Your task to perform on an android device: open app "Paramount+ | Peak Streaming" (install if not already installed) Image 0: 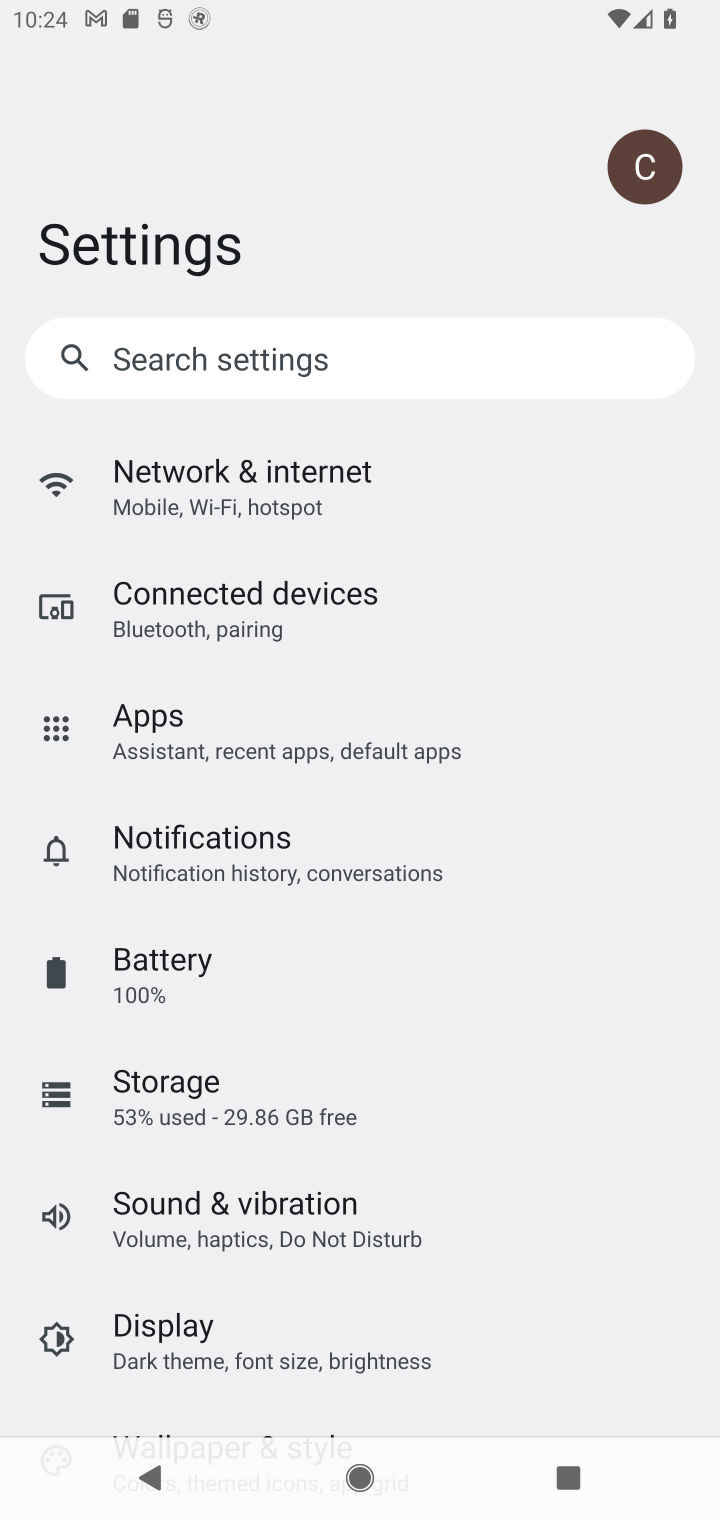
Step 0: press home button
Your task to perform on an android device: open app "Paramount+ | Peak Streaming" (install if not already installed) Image 1: 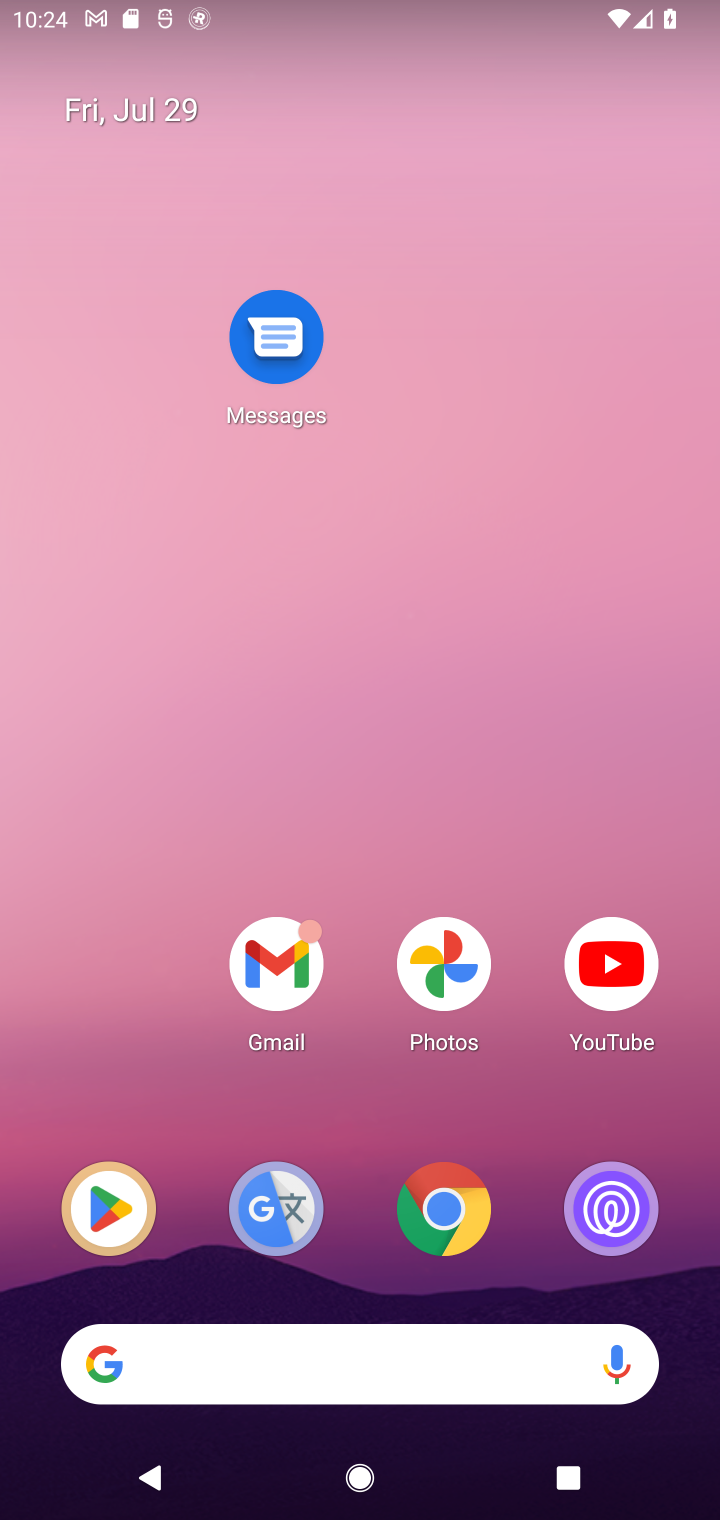
Step 1: drag from (329, 1361) to (356, 460)
Your task to perform on an android device: open app "Paramount+ | Peak Streaming" (install if not already installed) Image 2: 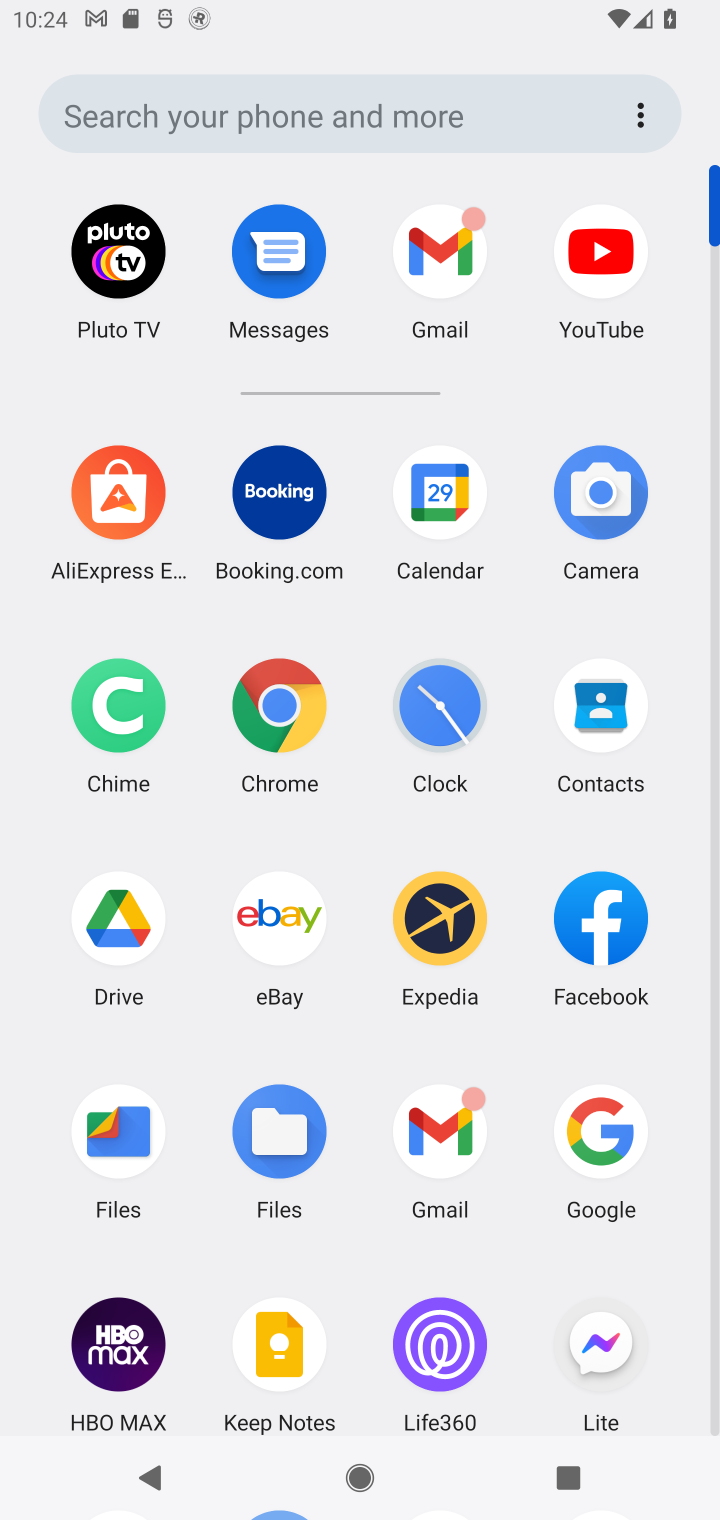
Step 2: drag from (343, 1146) to (312, 481)
Your task to perform on an android device: open app "Paramount+ | Peak Streaming" (install if not already installed) Image 3: 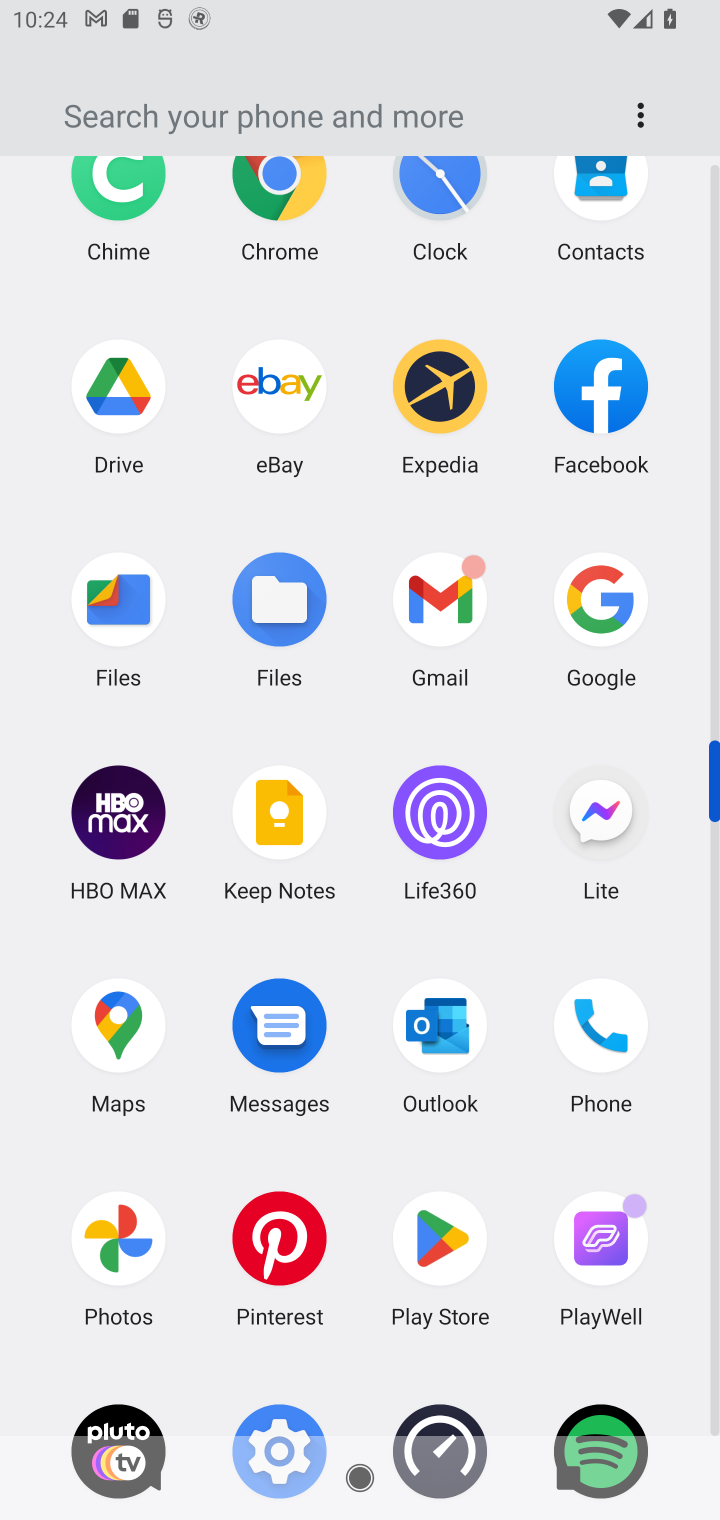
Step 3: click (446, 1236)
Your task to perform on an android device: open app "Paramount+ | Peak Streaming" (install if not already installed) Image 4: 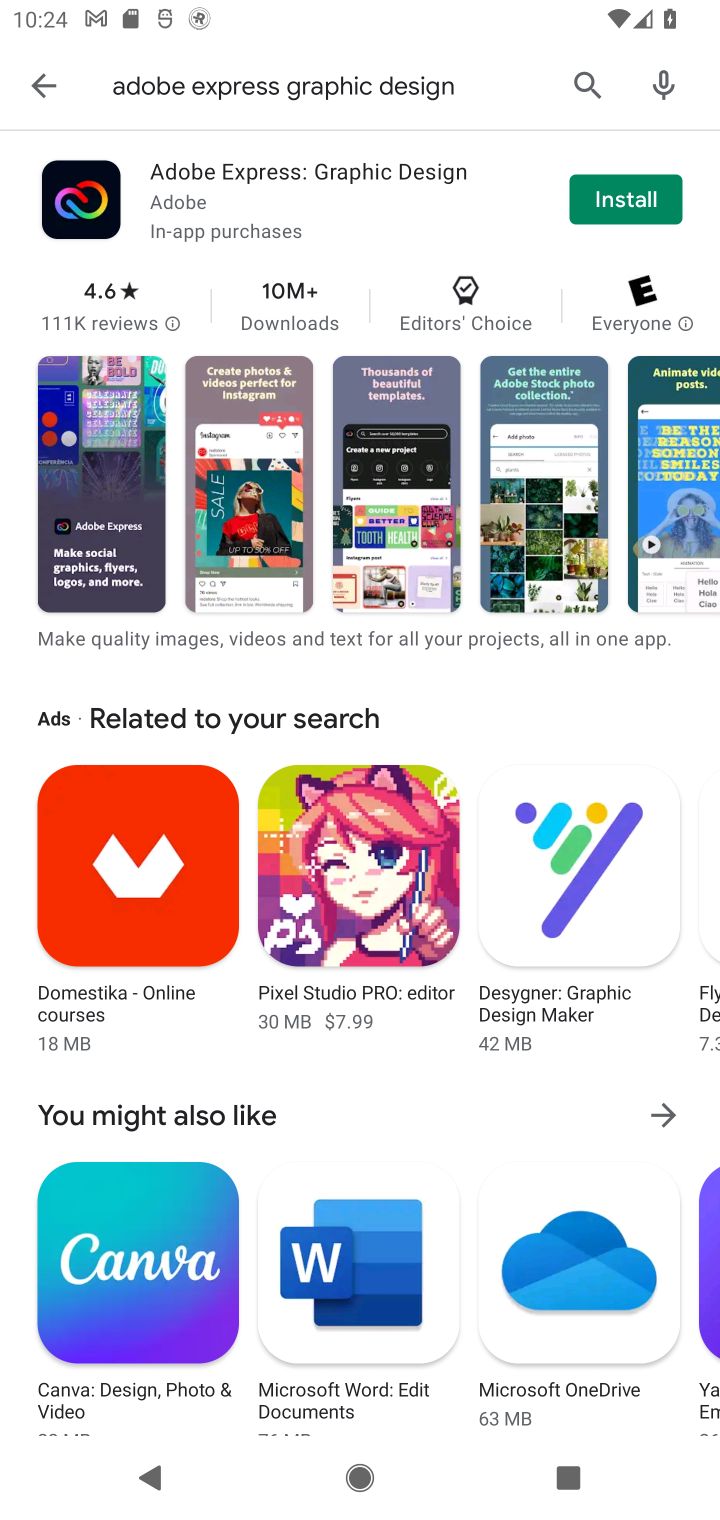
Step 4: click (584, 91)
Your task to perform on an android device: open app "Paramount+ | Peak Streaming" (install if not already installed) Image 5: 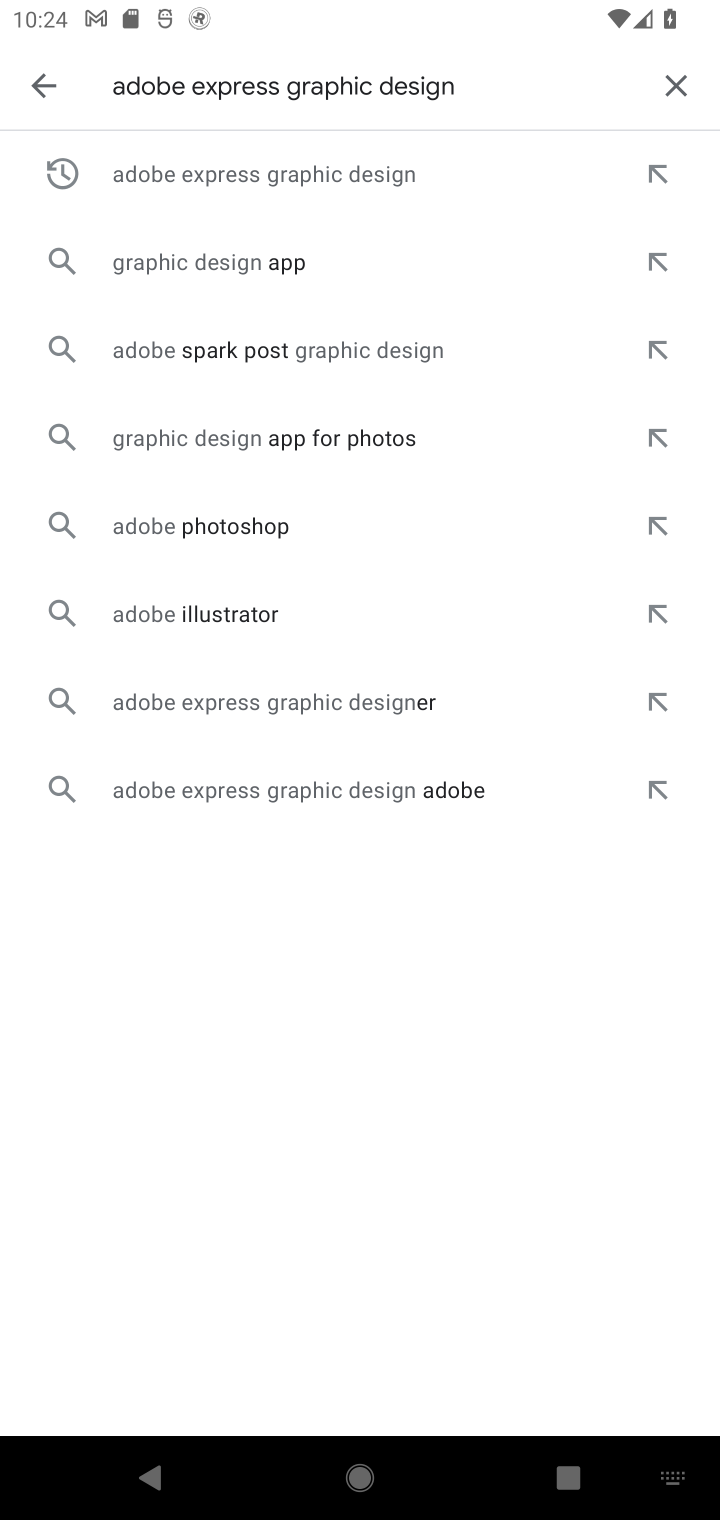
Step 5: click (683, 81)
Your task to perform on an android device: open app "Paramount+ | Peak Streaming" (install if not already installed) Image 6: 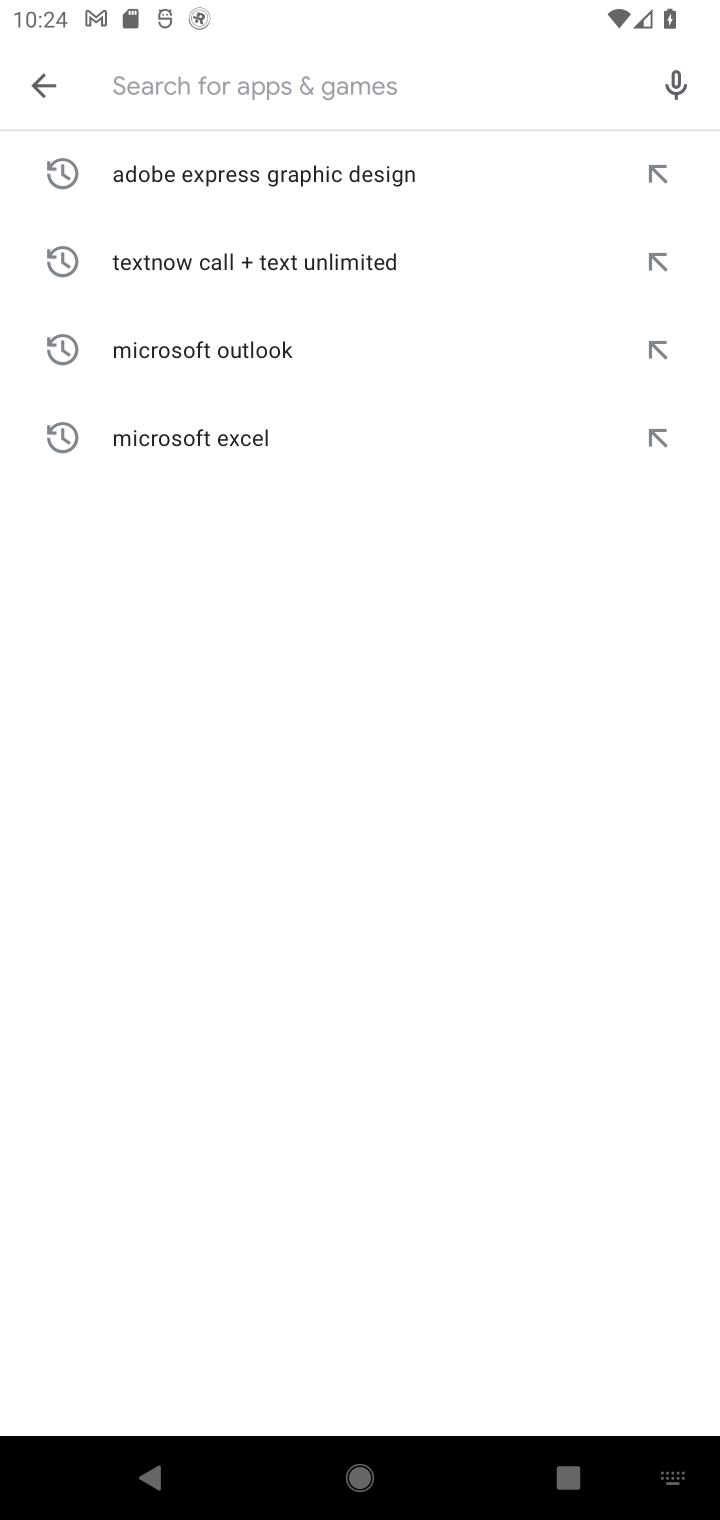
Step 6: type "Paramount+ | Peak Streaming"
Your task to perform on an android device: open app "Paramount+ | Peak Streaming" (install if not already installed) Image 7: 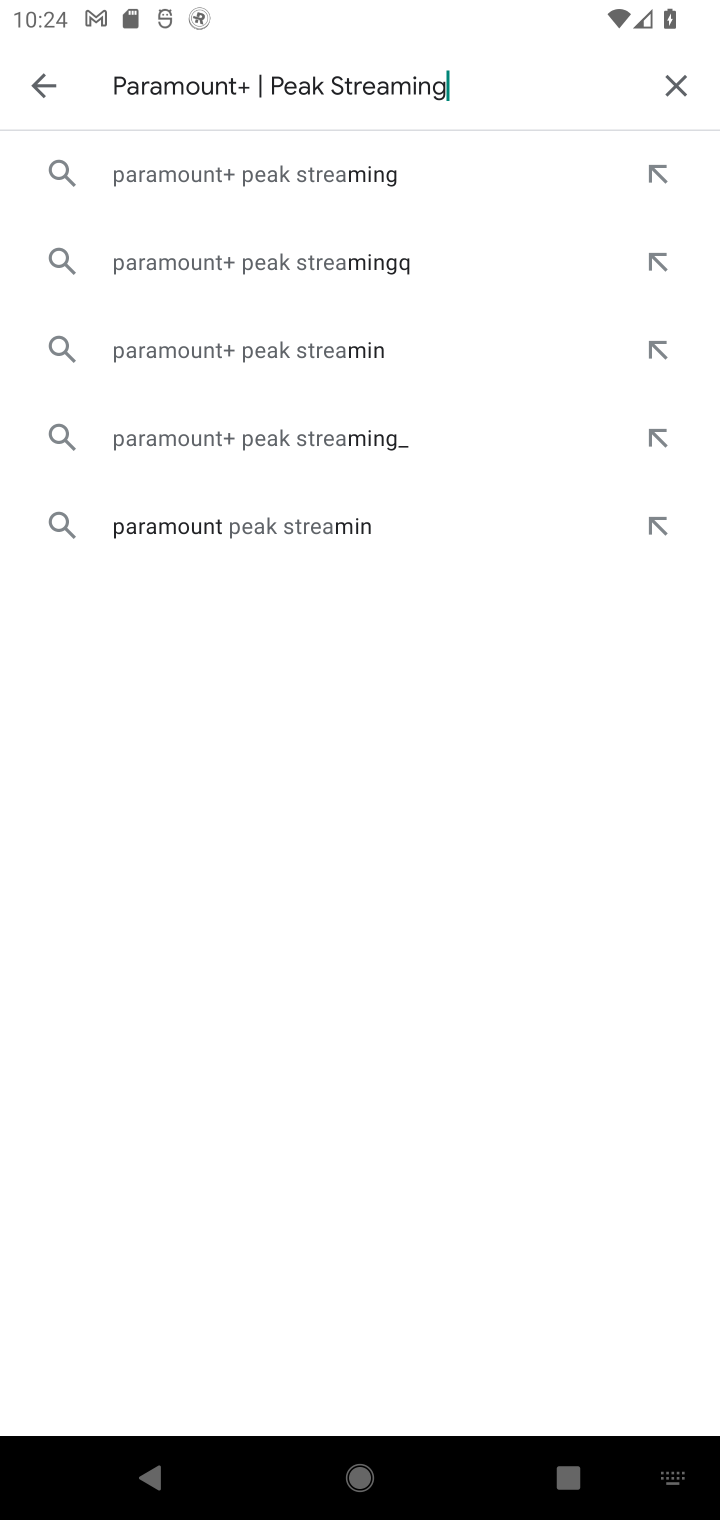
Step 7: type ""
Your task to perform on an android device: open app "Paramount+ | Peak Streaming" (install if not already installed) Image 8: 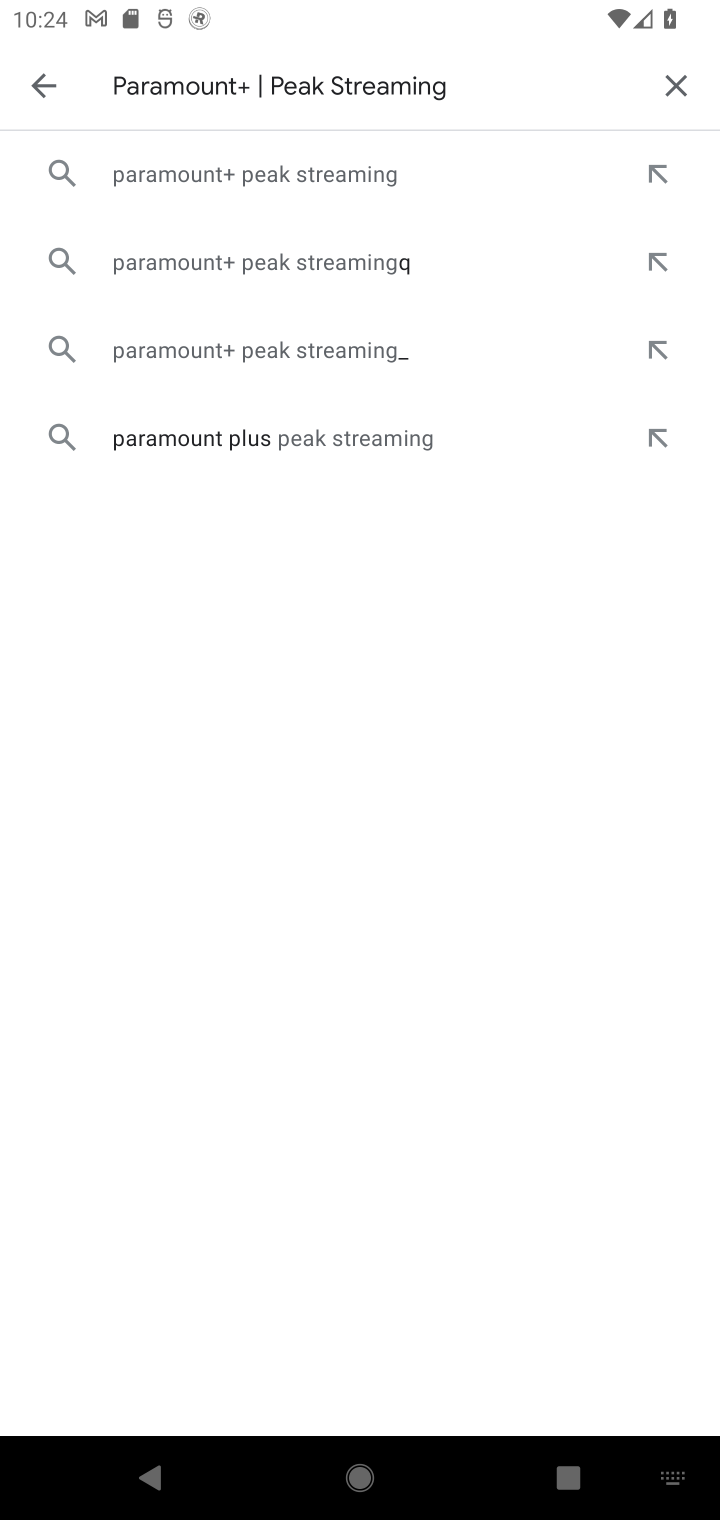
Step 8: click (320, 178)
Your task to perform on an android device: open app "Paramount+ | Peak Streaming" (install if not already installed) Image 9: 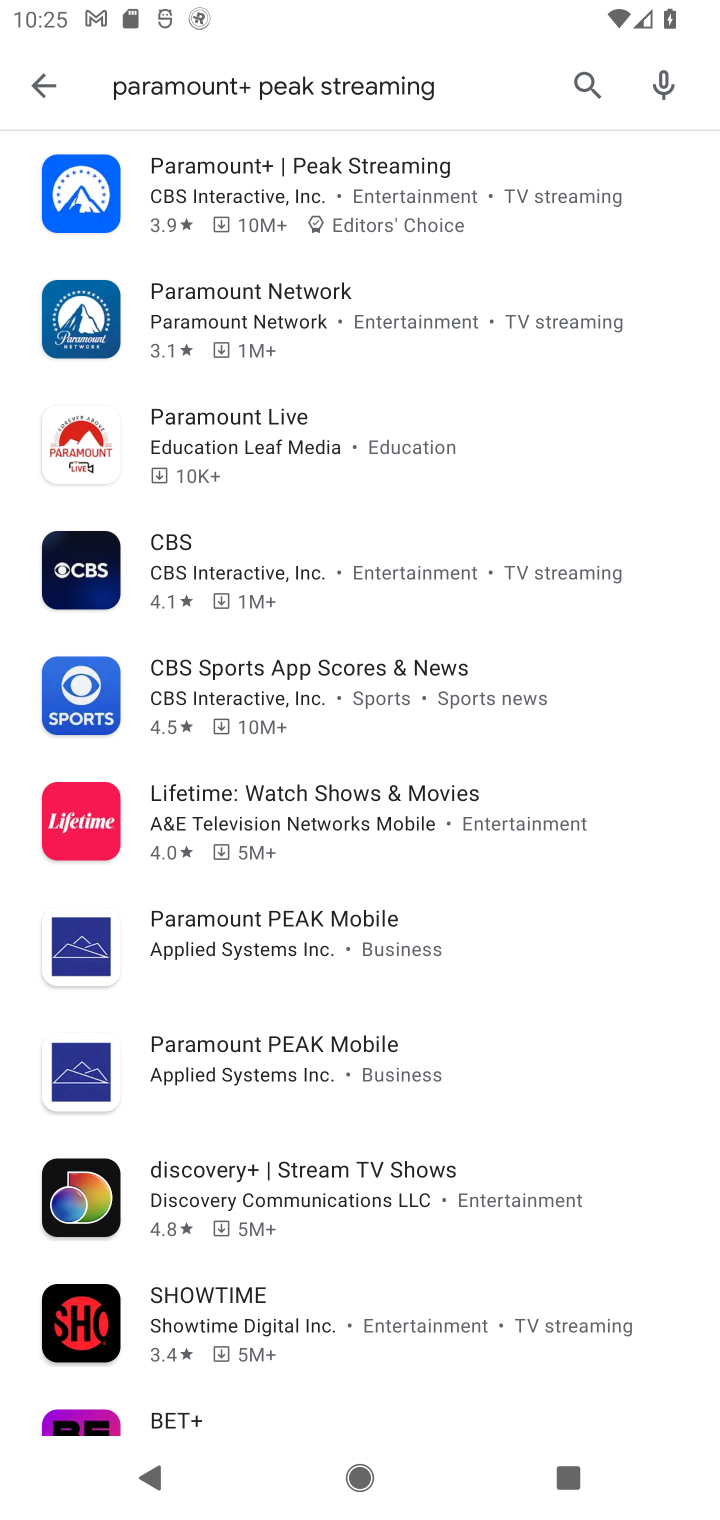
Step 9: click (262, 175)
Your task to perform on an android device: open app "Paramount+ | Peak Streaming" (install if not already installed) Image 10: 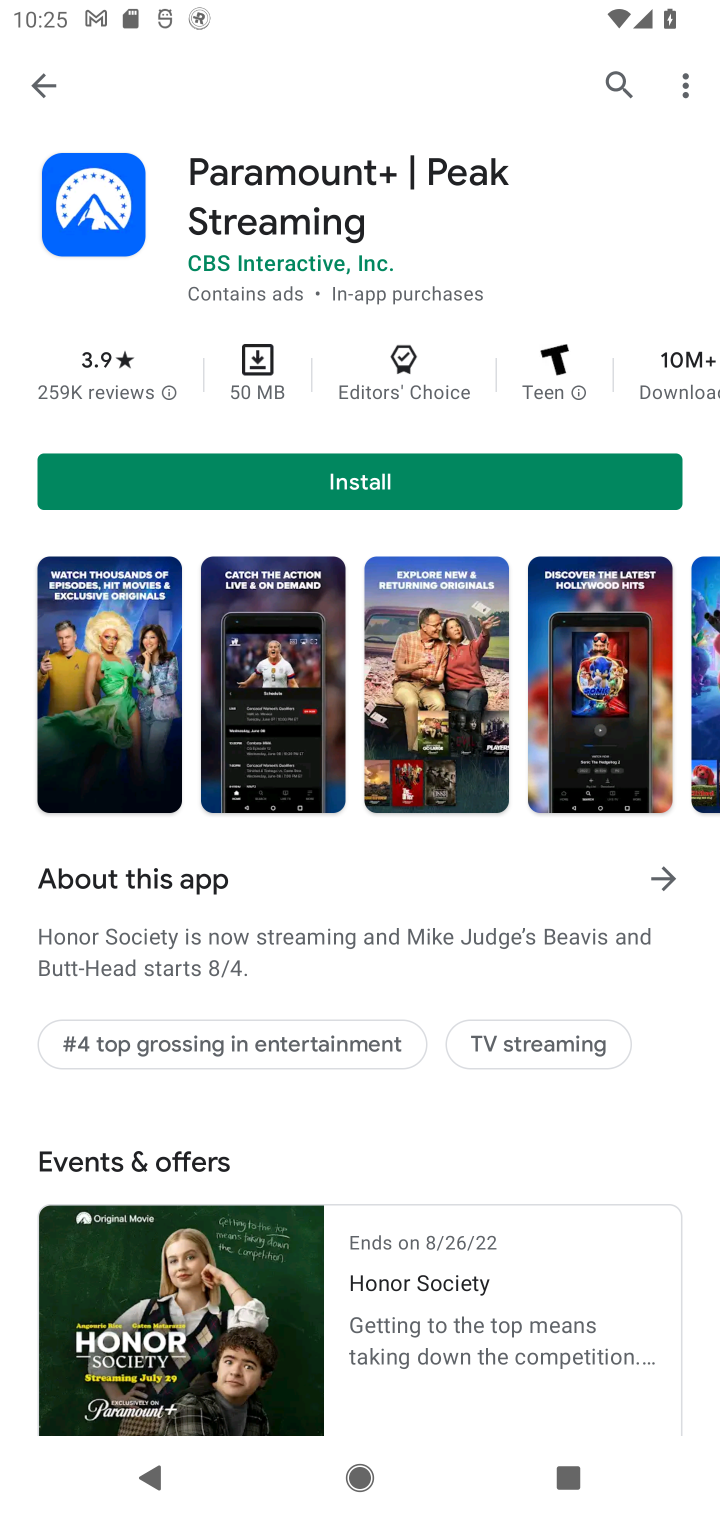
Step 10: click (362, 488)
Your task to perform on an android device: open app "Paramount+ | Peak Streaming" (install if not already installed) Image 11: 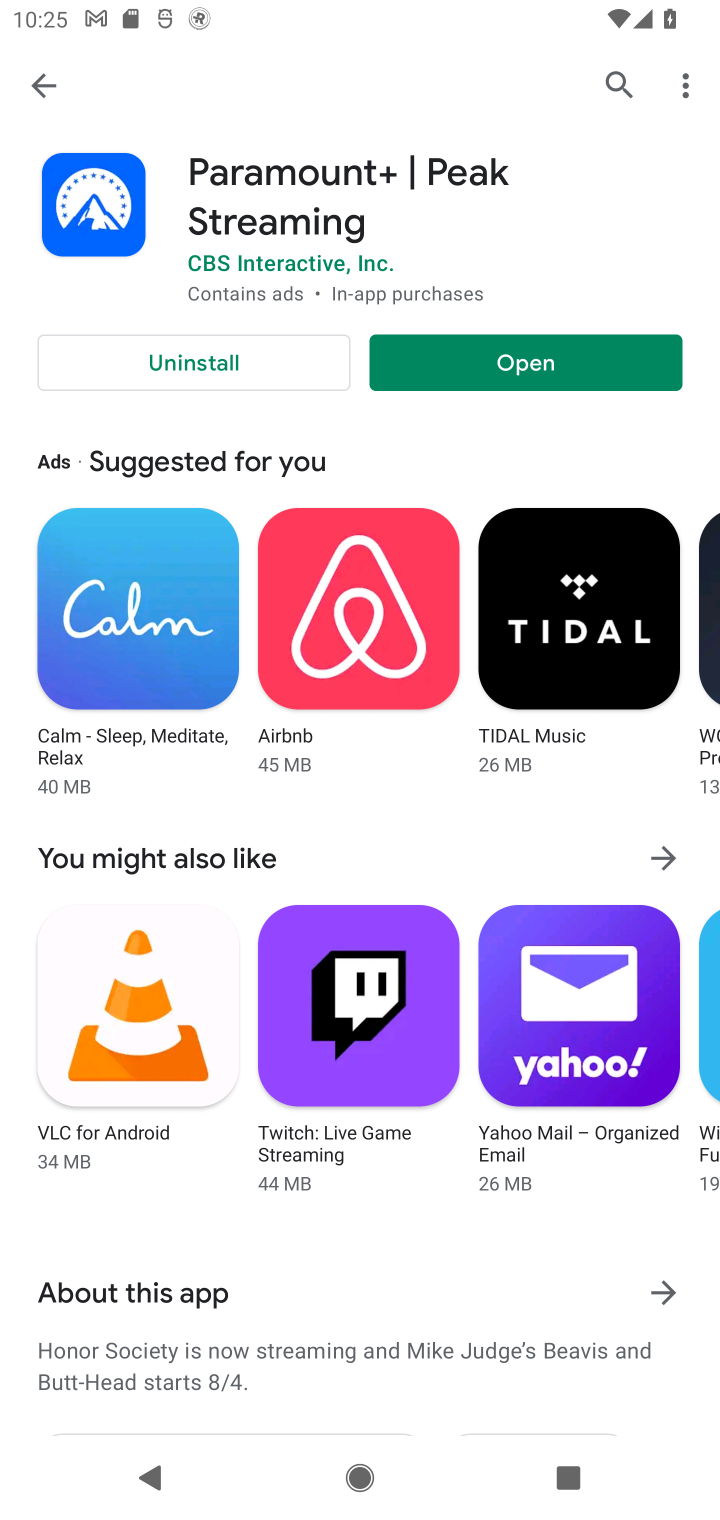
Step 11: click (523, 350)
Your task to perform on an android device: open app "Paramount+ | Peak Streaming" (install if not already installed) Image 12: 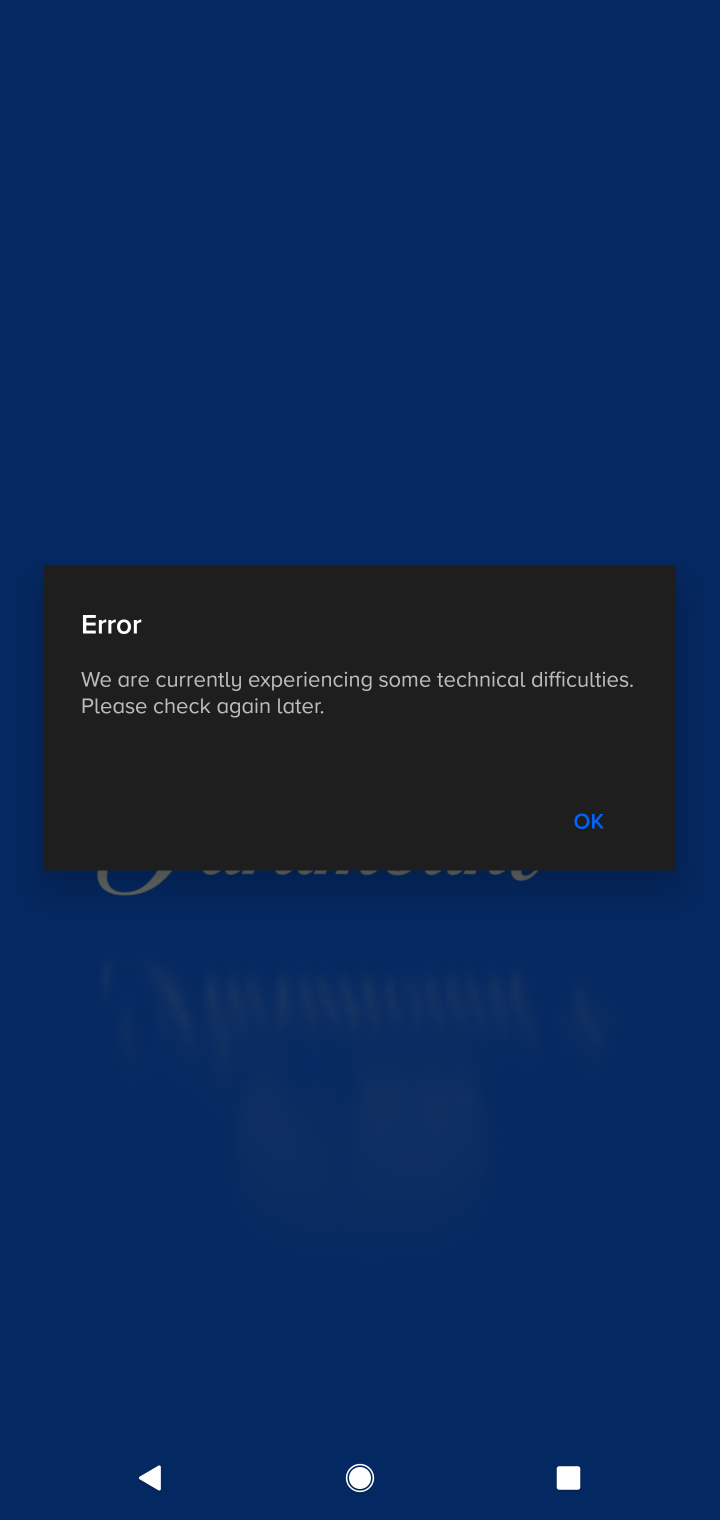
Step 12: task complete